Your task to perform on an android device: What's the weather? Image 0: 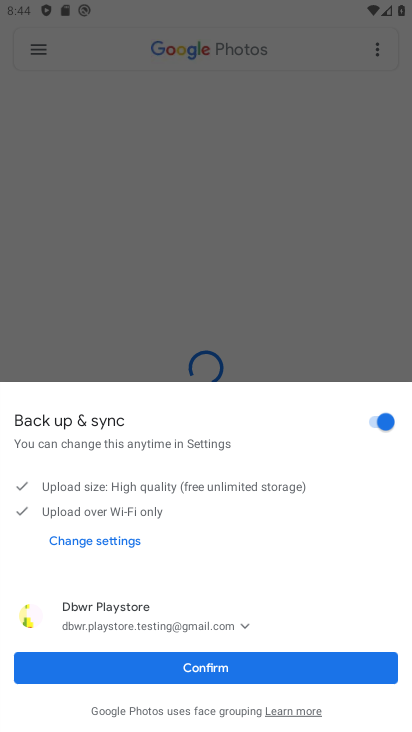
Step 0: press home button
Your task to perform on an android device: What's the weather? Image 1: 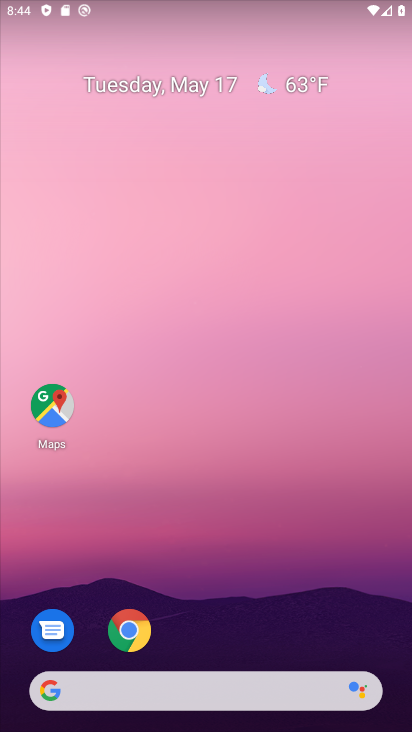
Step 1: click (297, 78)
Your task to perform on an android device: What's the weather? Image 2: 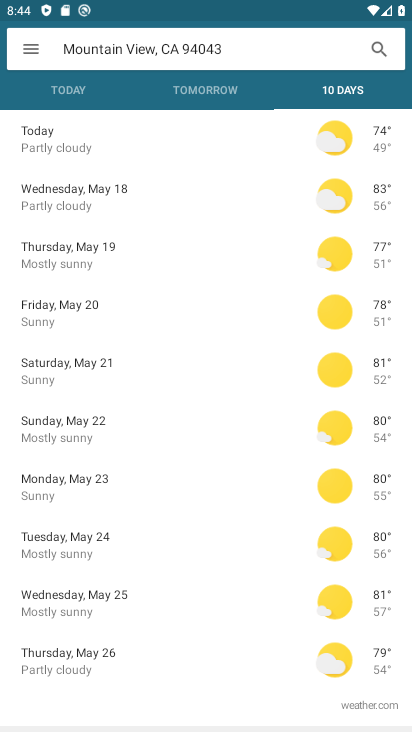
Step 2: click (75, 90)
Your task to perform on an android device: What's the weather? Image 3: 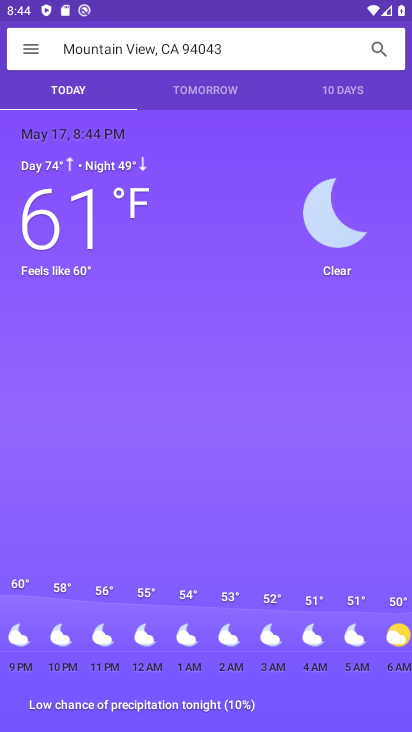
Step 3: task complete